Your task to perform on an android device: toggle translation in the chrome app Image 0: 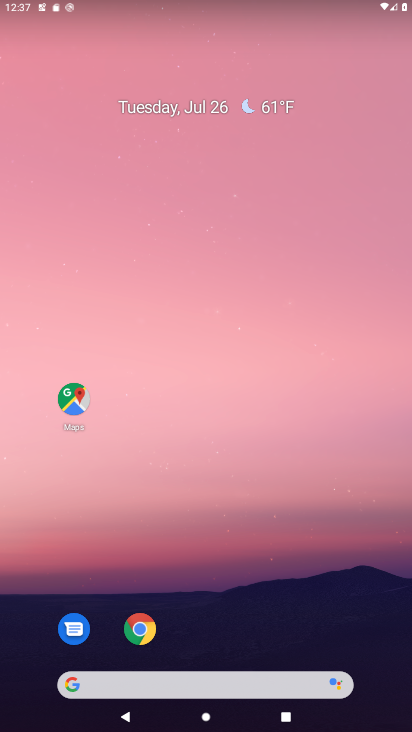
Step 0: click (144, 632)
Your task to perform on an android device: toggle translation in the chrome app Image 1: 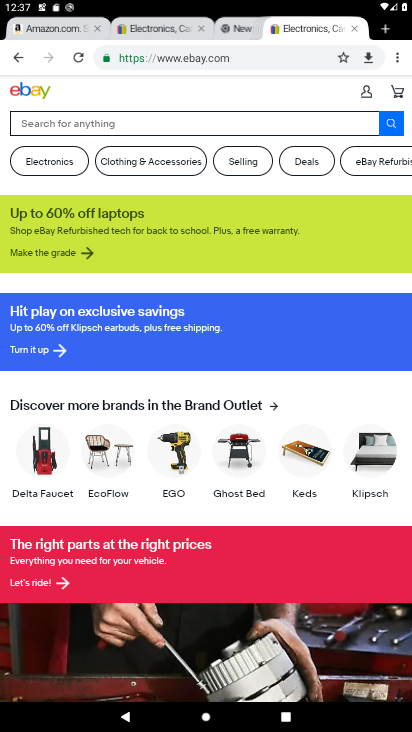
Step 1: click (400, 70)
Your task to perform on an android device: toggle translation in the chrome app Image 2: 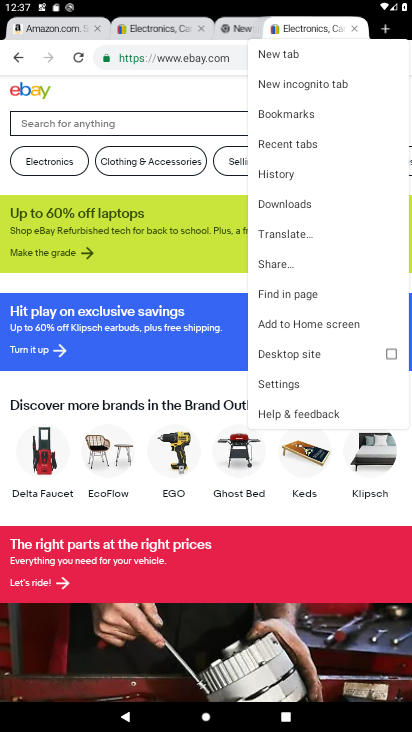
Step 2: click (299, 375)
Your task to perform on an android device: toggle translation in the chrome app Image 3: 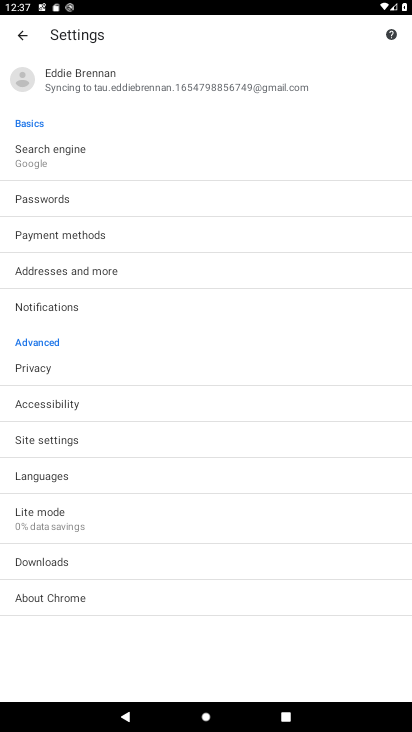
Step 3: click (96, 478)
Your task to perform on an android device: toggle translation in the chrome app Image 4: 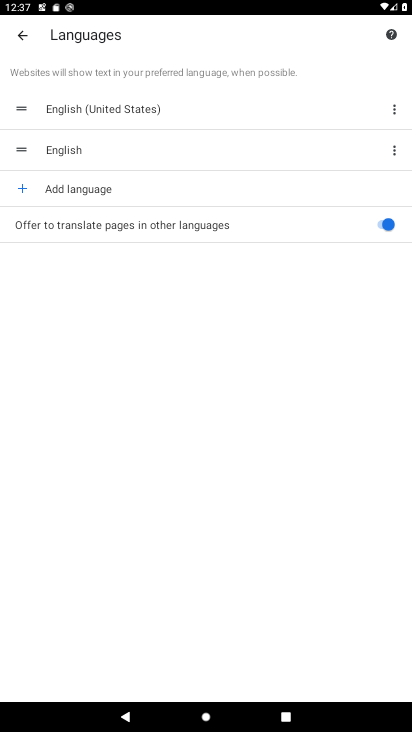
Step 4: click (377, 233)
Your task to perform on an android device: toggle translation in the chrome app Image 5: 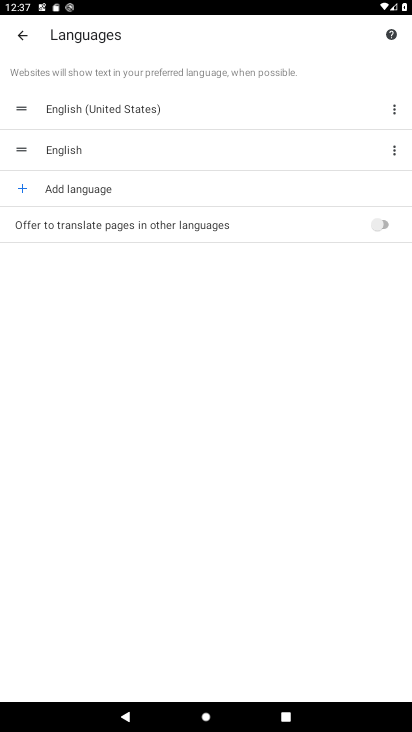
Step 5: task complete